Your task to perform on an android device: stop showing notifications on the lock screen Image 0: 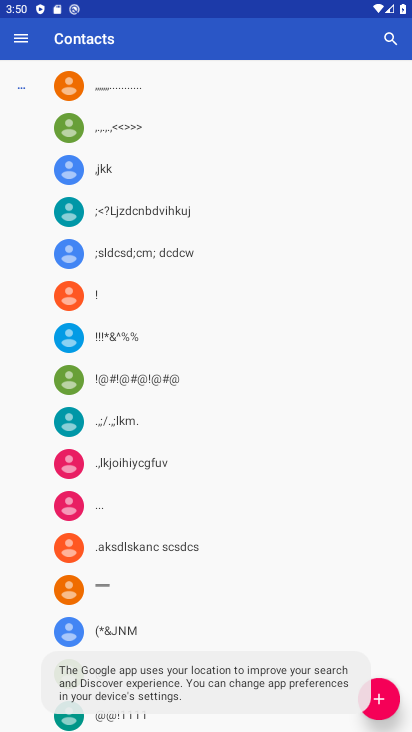
Step 0: press home button
Your task to perform on an android device: stop showing notifications on the lock screen Image 1: 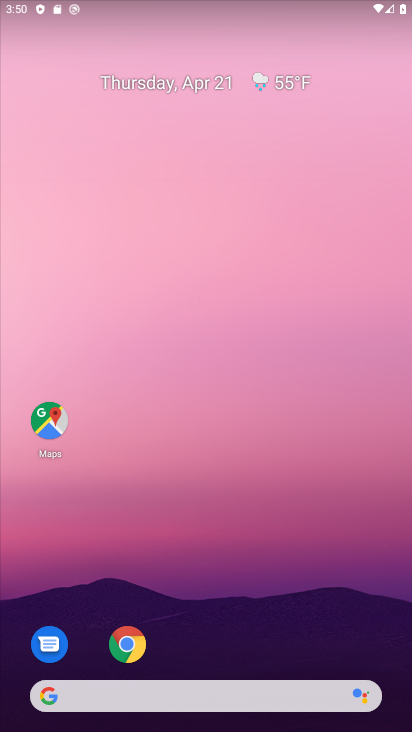
Step 1: drag from (161, 695) to (281, 96)
Your task to perform on an android device: stop showing notifications on the lock screen Image 2: 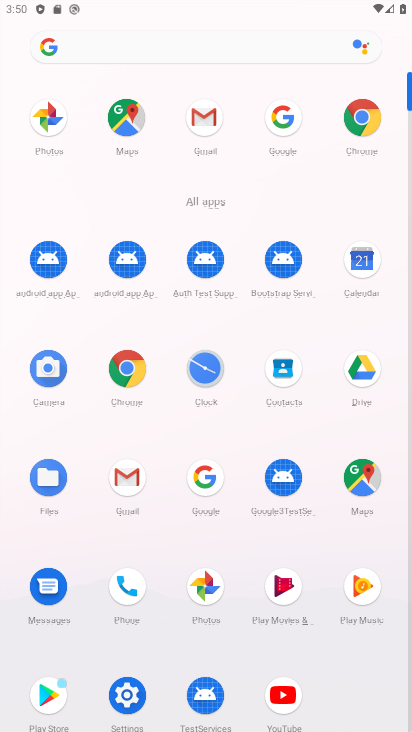
Step 2: click (127, 698)
Your task to perform on an android device: stop showing notifications on the lock screen Image 3: 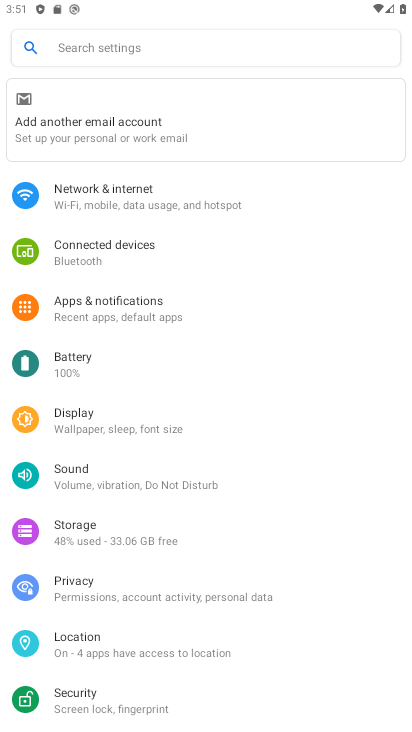
Step 3: click (106, 311)
Your task to perform on an android device: stop showing notifications on the lock screen Image 4: 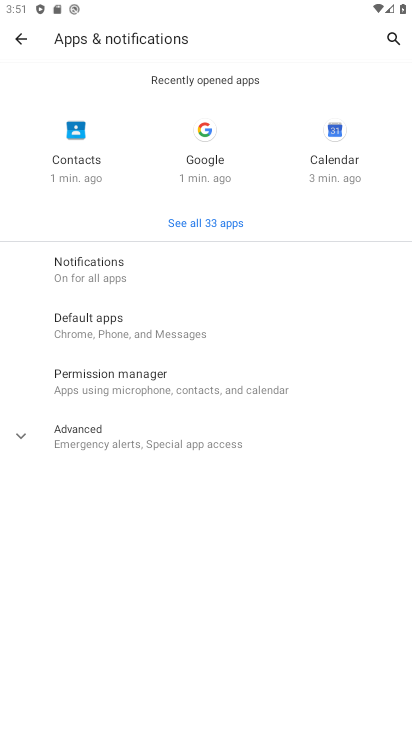
Step 4: click (95, 273)
Your task to perform on an android device: stop showing notifications on the lock screen Image 5: 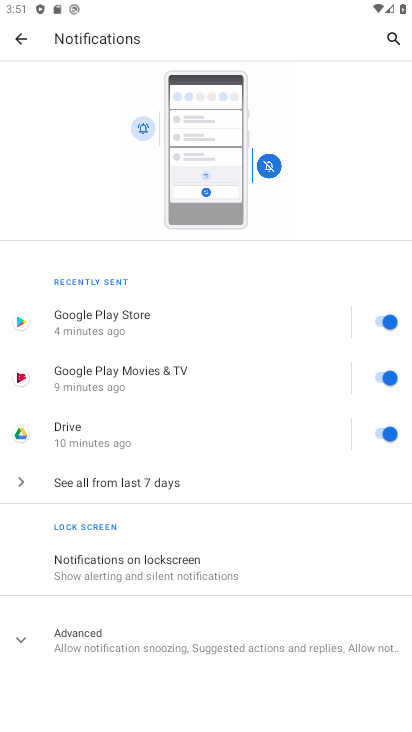
Step 5: click (167, 556)
Your task to perform on an android device: stop showing notifications on the lock screen Image 6: 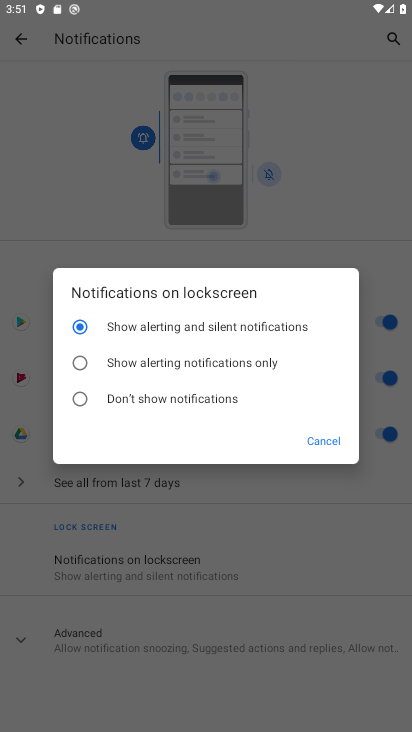
Step 6: click (77, 398)
Your task to perform on an android device: stop showing notifications on the lock screen Image 7: 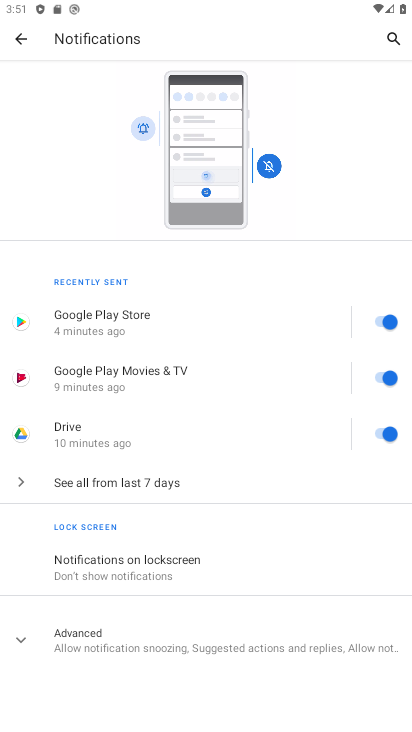
Step 7: task complete